Your task to perform on an android device: change your default location settings in chrome Image 0: 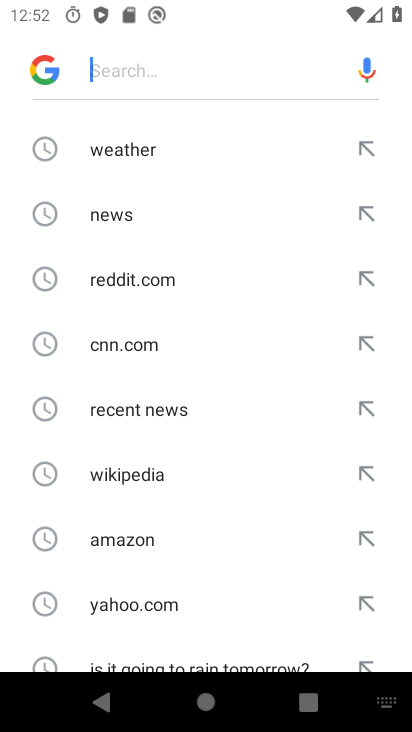
Step 0: press back button
Your task to perform on an android device: change your default location settings in chrome Image 1: 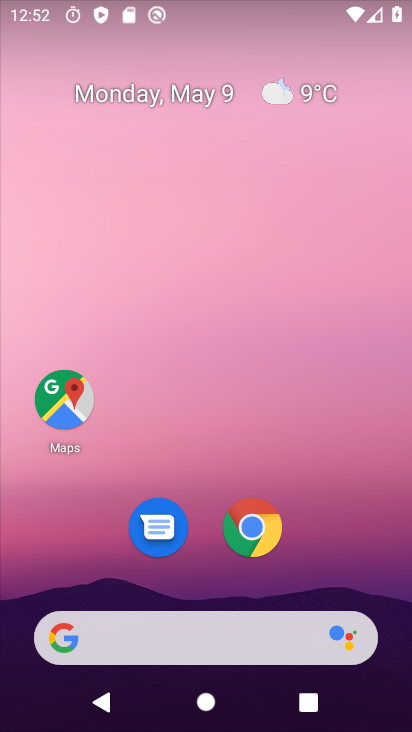
Step 1: drag from (244, 524) to (318, 524)
Your task to perform on an android device: change your default location settings in chrome Image 2: 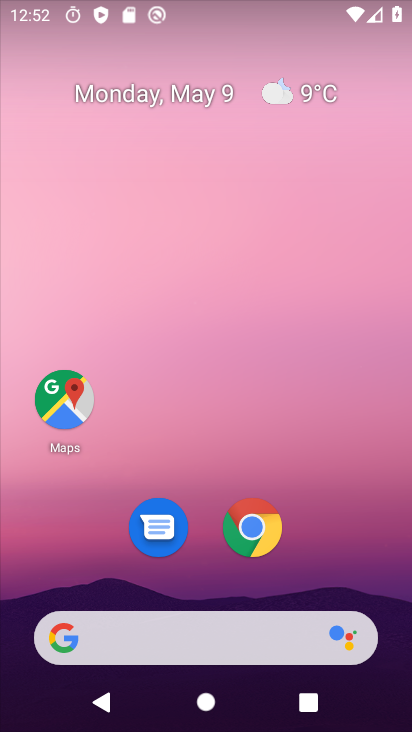
Step 2: click (260, 526)
Your task to perform on an android device: change your default location settings in chrome Image 3: 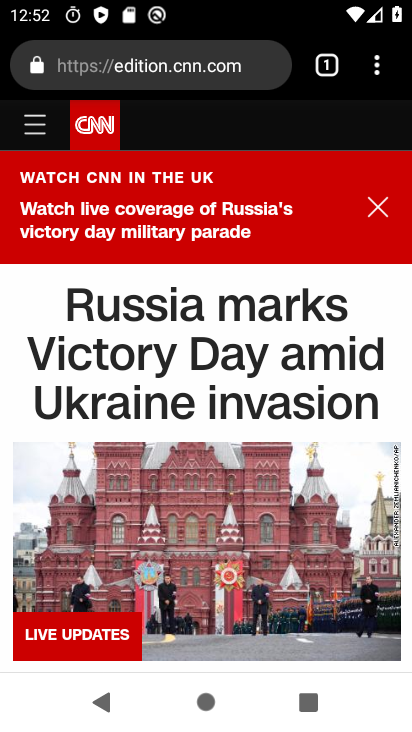
Step 3: drag from (370, 60) to (150, 568)
Your task to perform on an android device: change your default location settings in chrome Image 4: 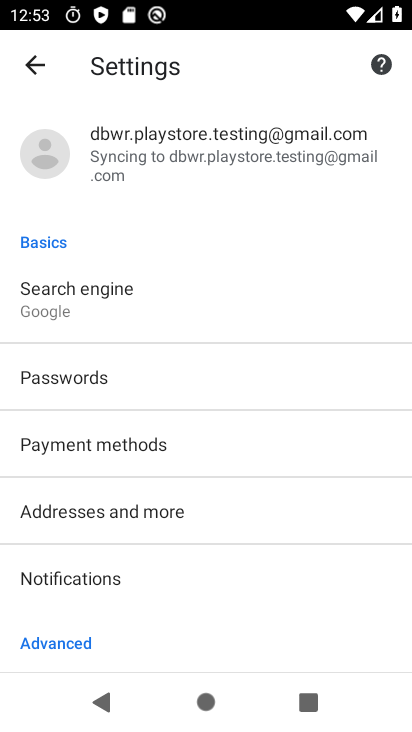
Step 4: drag from (167, 576) to (254, 122)
Your task to perform on an android device: change your default location settings in chrome Image 5: 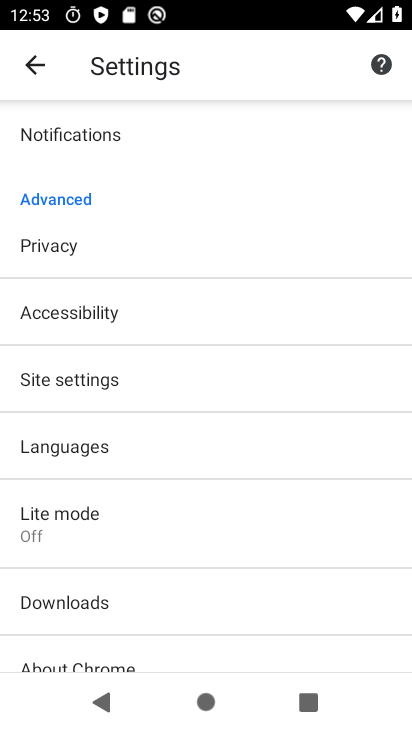
Step 5: click (82, 380)
Your task to perform on an android device: change your default location settings in chrome Image 6: 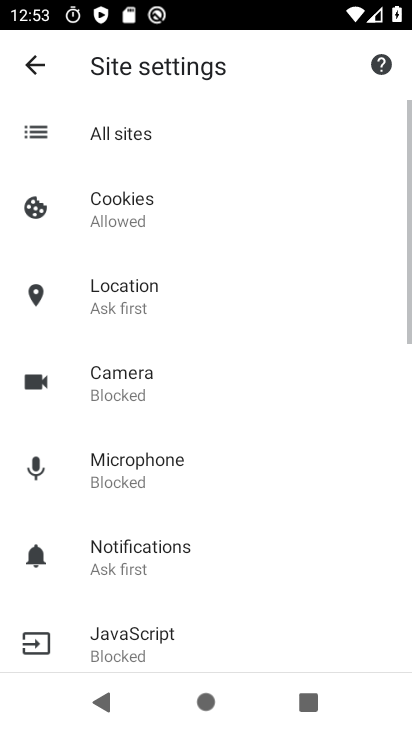
Step 6: click (148, 300)
Your task to perform on an android device: change your default location settings in chrome Image 7: 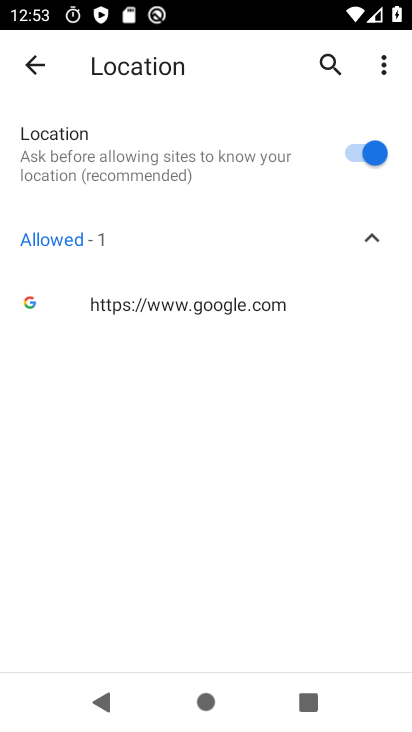
Step 7: click (361, 152)
Your task to perform on an android device: change your default location settings in chrome Image 8: 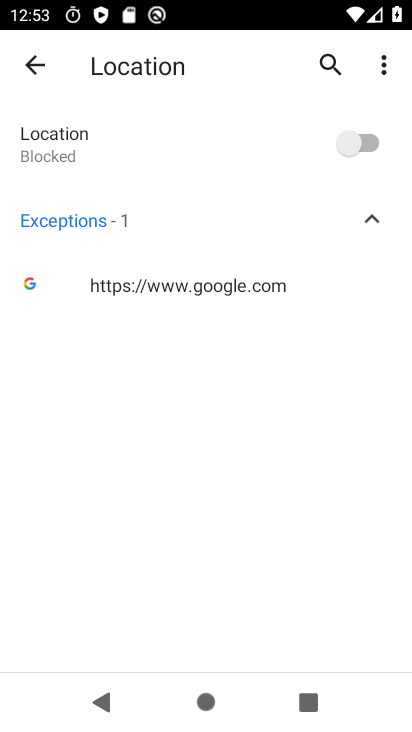
Step 8: task complete